Your task to perform on an android device: toggle notifications settings in the gmail app Image 0: 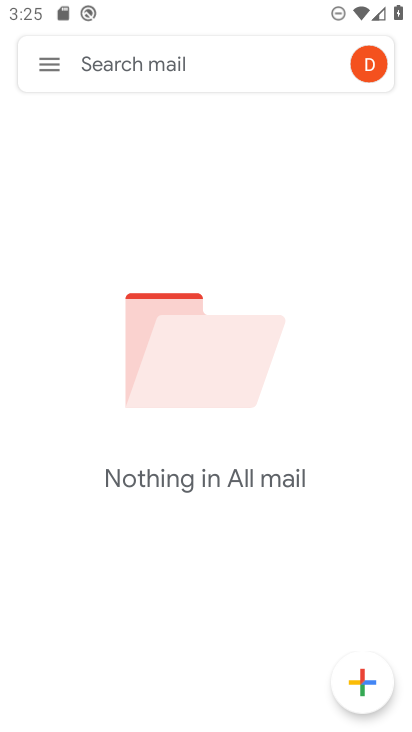
Step 0: press home button
Your task to perform on an android device: toggle notifications settings in the gmail app Image 1: 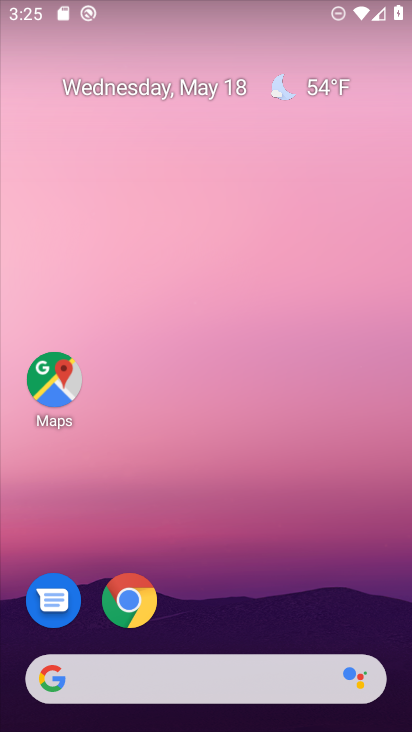
Step 1: drag from (232, 571) to (243, 16)
Your task to perform on an android device: toggle notifications settings in the gmail app Image 2: 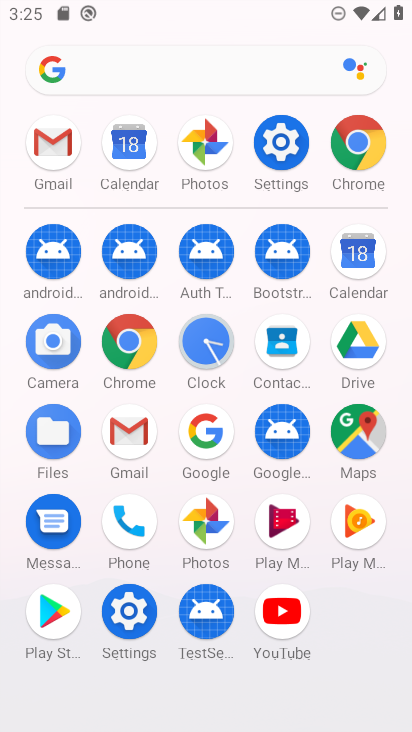
Step 2: click (137, 443)
Your task to perform on an android device: toggle notifications settings in the gmail app Image 3: 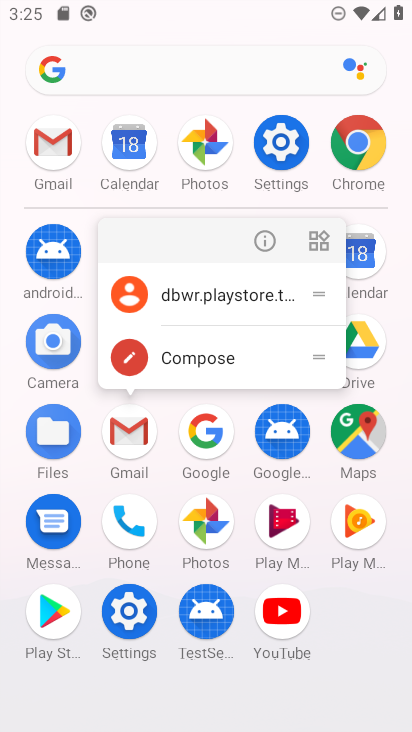
Step 3: click (123, 437)
Your task to perform on an android device: toggle notifications settings in the gmail app Image 4: 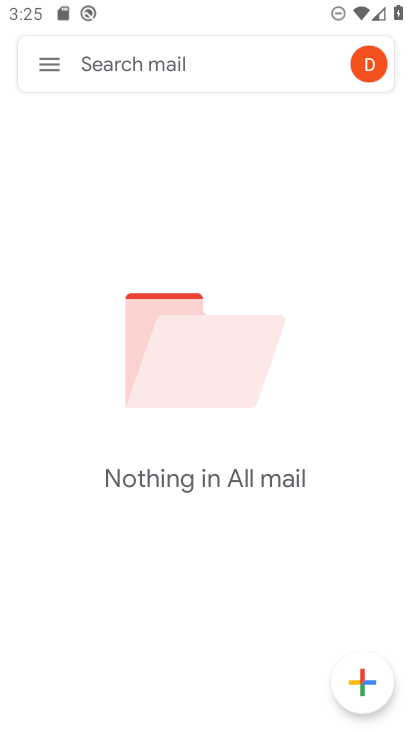
Step 4: click (56, 65)
Your task to perform on an android device: toggle notifications settings in the gmail app Image 5: 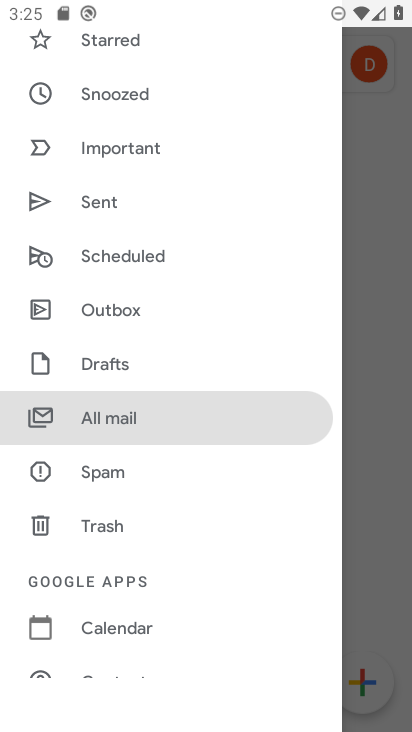
Step 5: drag from (150, 487) to (159, 140)
Your task to perform on an android device: toggle notifications settings in the gmail app Image 6: 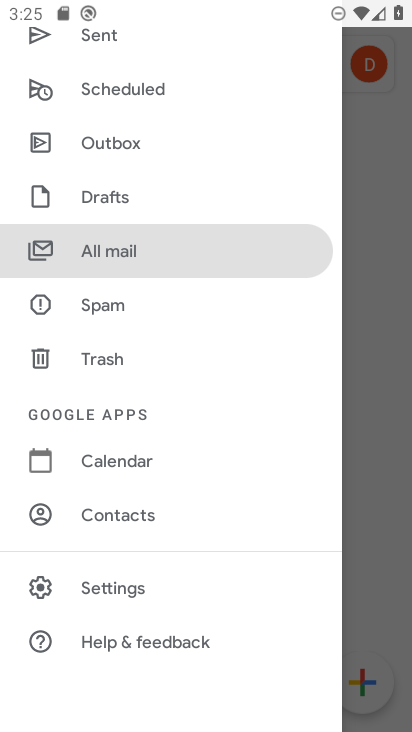
Step 6: click (120, 587)
Your task to perform on an android device: toggle notifications settings in the gmail app Image 7: 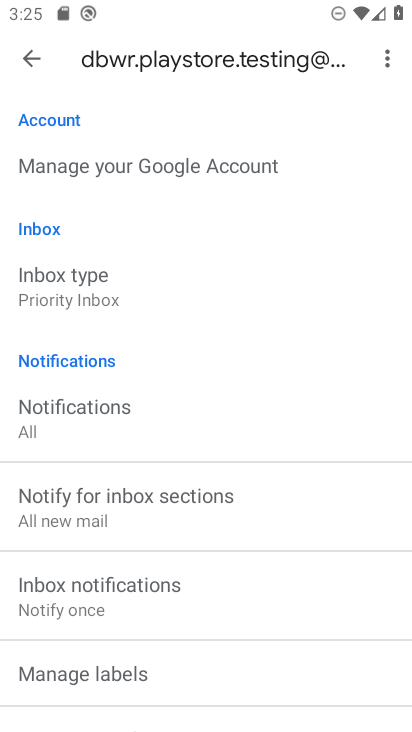
Step 7: click (41, 57)
Your task to perform on an android device: toggle notifications settings in the gmail app Image 8: 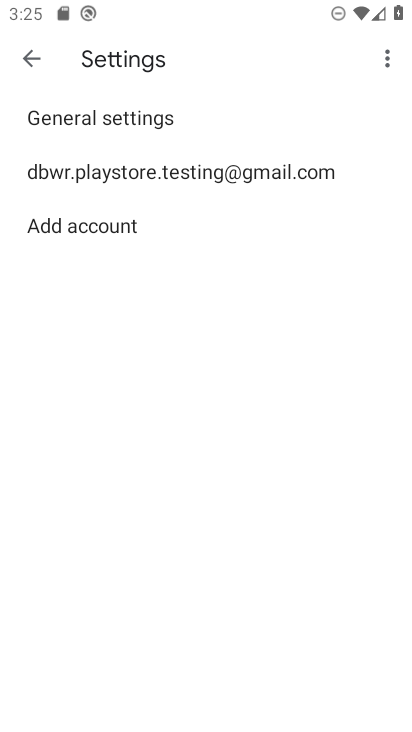
Step 8: click (145, 125)
Your task to perform on an android device: toggle notifications settings in the gmail app Image 9: 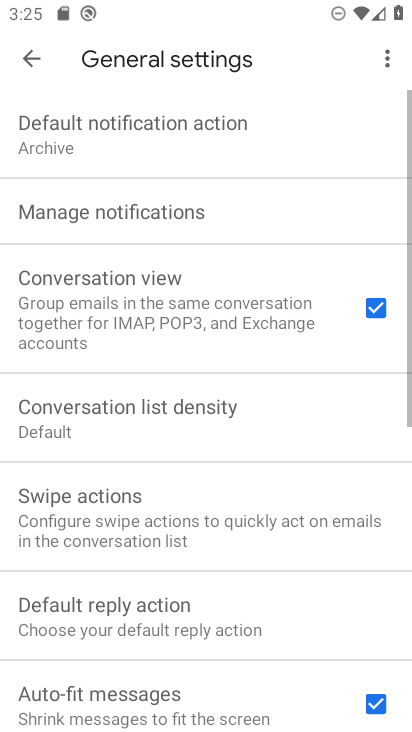
Step 9: click (135, 226)
Your task to perform on an android device: toggle notifications settings in the gmail app Image 10: 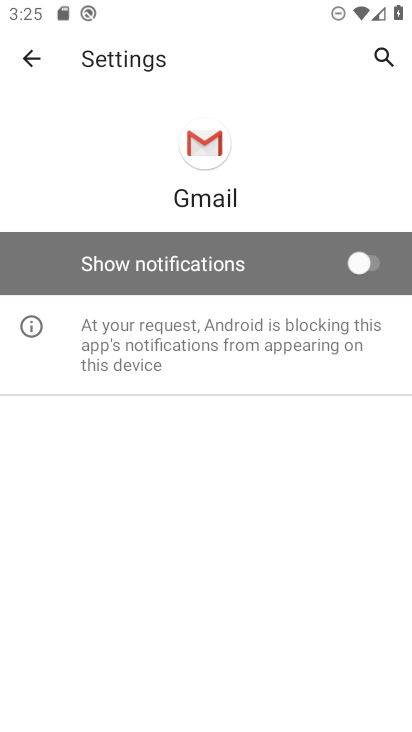
Step 10: click (389, 261)
Your task to perform on an android device: toggle notifications settings in the gmail app Image 11: 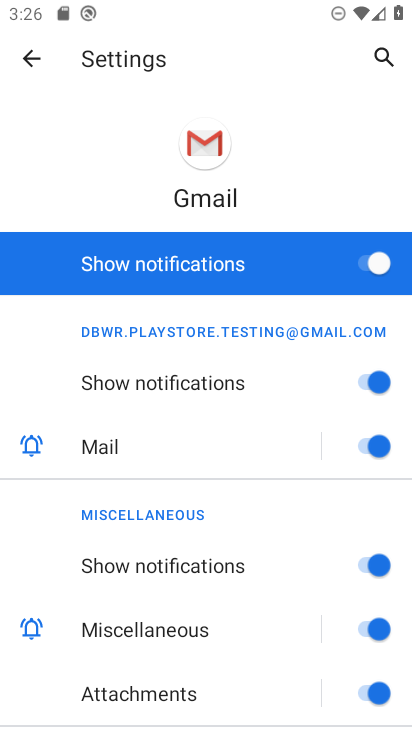
Step 11: task complete